Your task to perform on an android device: Open notification settings Image 0: 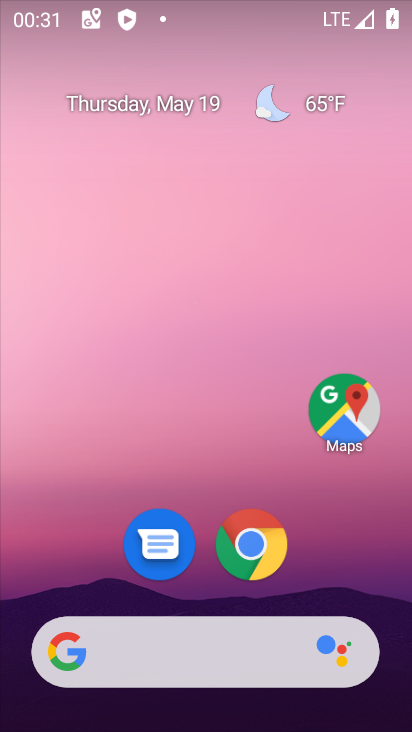
Step 0: drag from (355, 556) to (362, 109)
Your task to perform on an android device: Open notification settings Image 1: 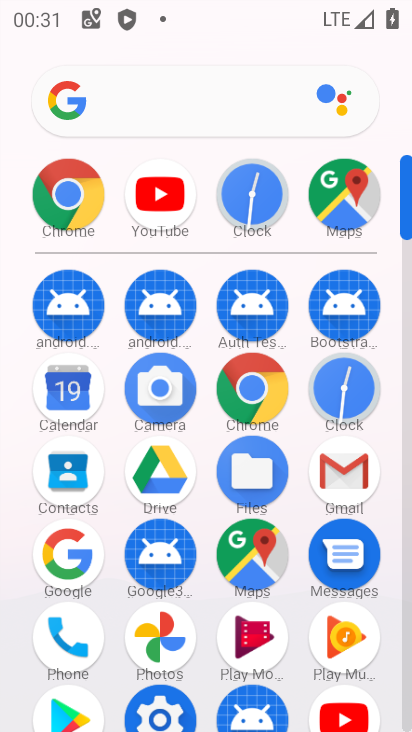
Step 1: drag from (108, 573) to (102, 314)
Your task to perform on an android device: Open notification settings Image 2: 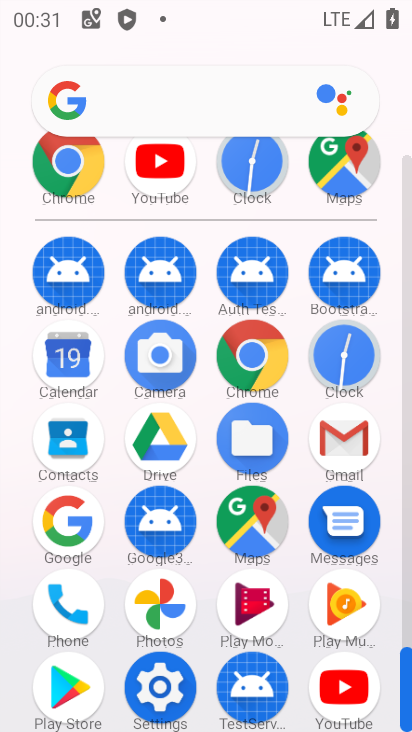
Step 2: click (162, 697)
Your task to perform on an android device: Open notification settings Image 3: 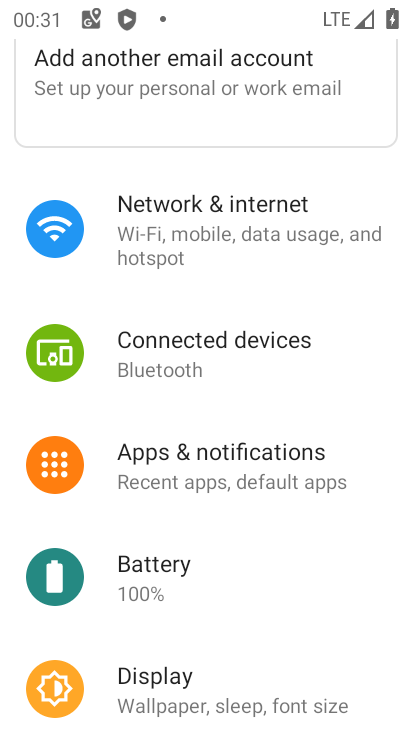
Step 3: drag from (360, 337) to (360, 566)
Your task to perform on an android device: Open notification settings Image 4: 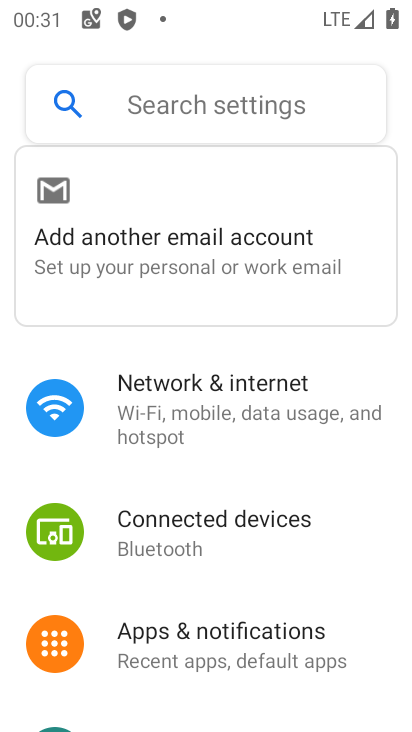
Step 4: drag from (369, 238) to (347, 507)
Your task to perform on an android device: Open notification settings Image 5: 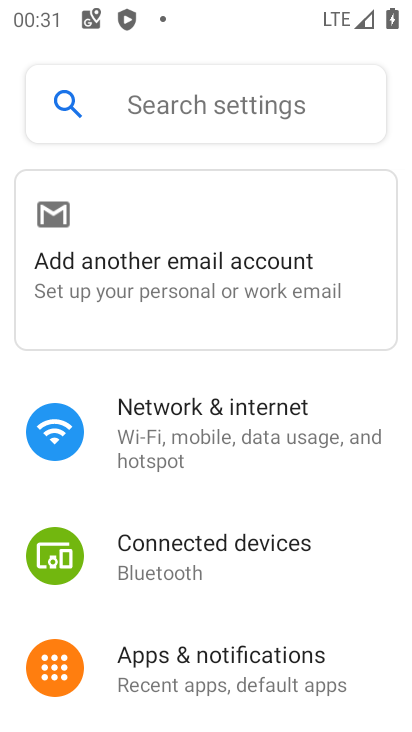
Step 5: drag from (354, 588) to (352, 402)
Your task to perform on an android device: Open notification settings Image 6: 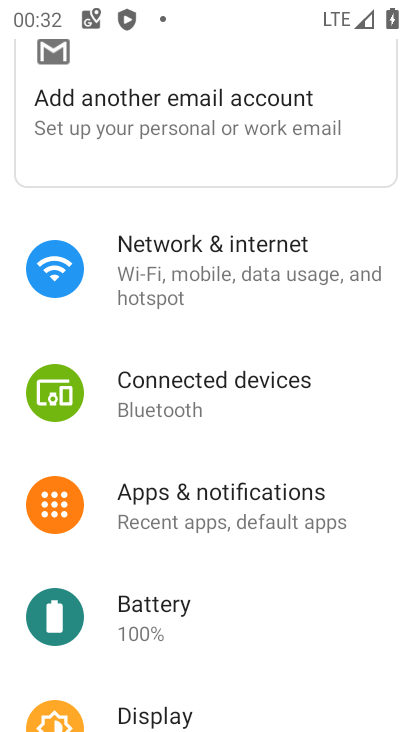
Step 6: drag from (345, 617) to (344, 441)
Your task to perform on an android device: Open notification settings Image 7: 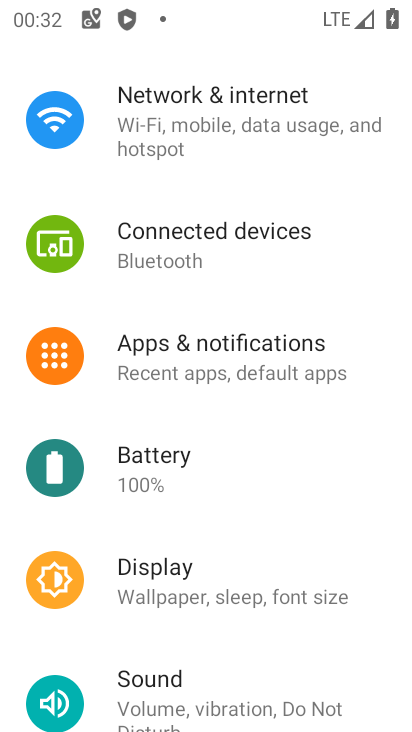
Step 7: drag from (329, 633) to (334, 479)
Your task to perform on an android device: Open notification settings Image 8: 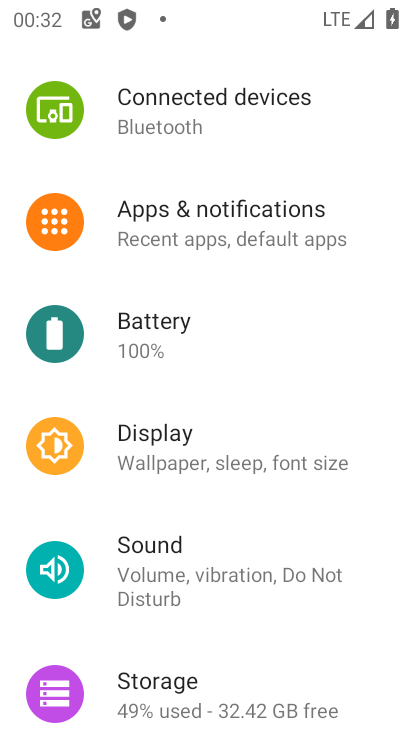
Step 8: drag from (329, 668) to (341, 502)
Your task to perform on an android device: Open notification settings Image 9: 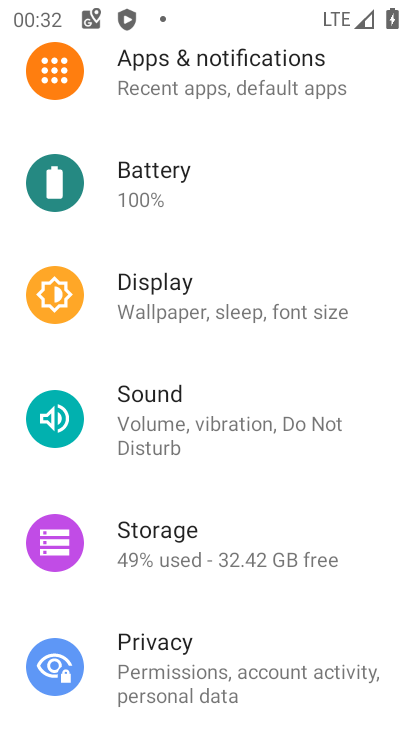
Step 9: drag from (321, 646) to (332, 452)
Your task to perform on an android device: Open notification settings Image 10: 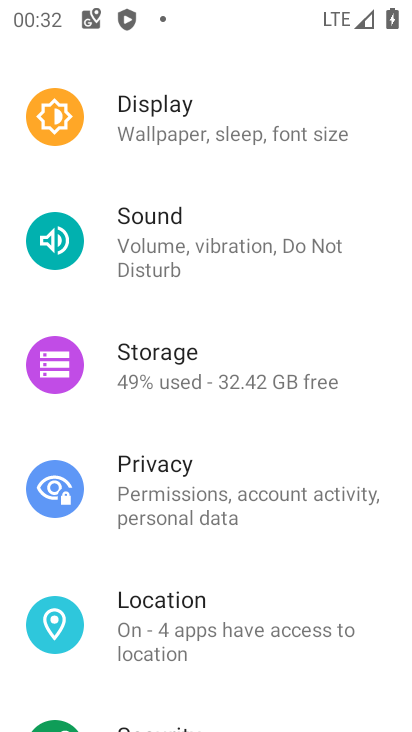
Step 10: drag from (302, 635) to (310, 416)
Your task to perform on an android device: Open notification settings Image 11: 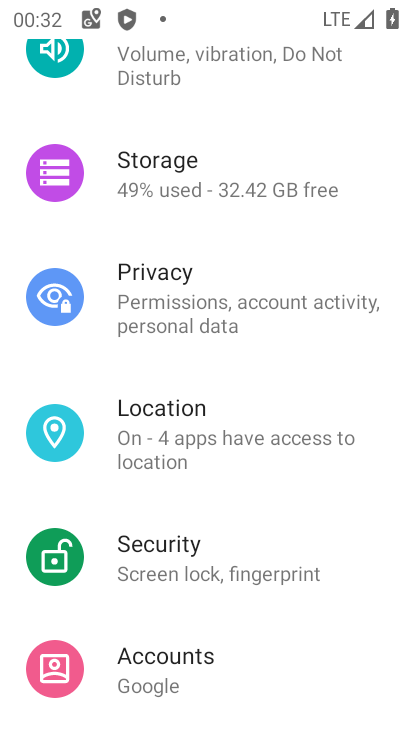
Step 11: drag from (296, 646) to (303, 455)
Your task to perform on an android device: Open notification settings Image 12: 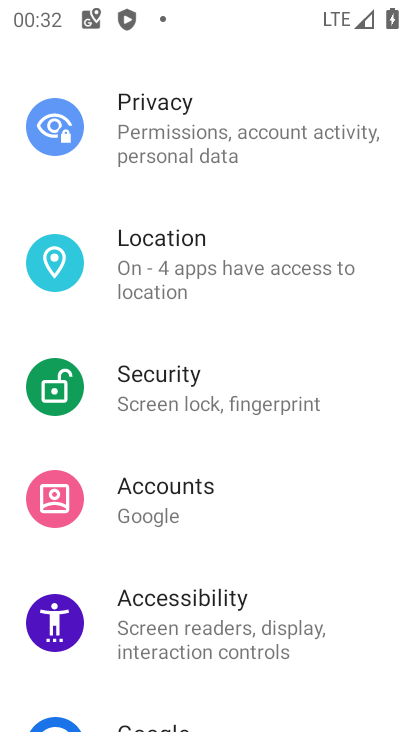
Step 12: drag from (311, 677) to (310, 423)
Your task to perform on an android device: Open notification settings Image 13: 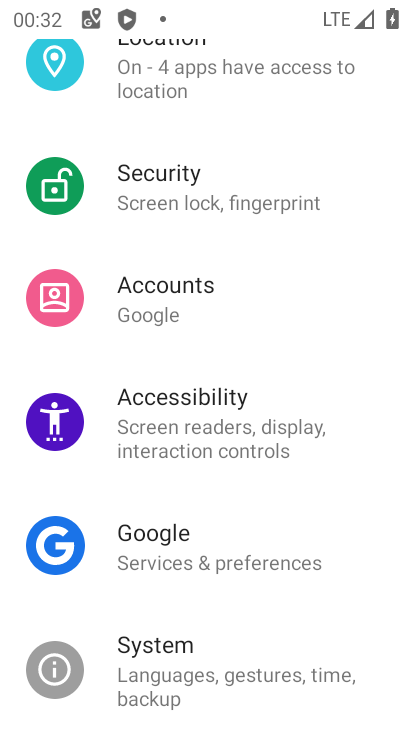
Step 13: drag from (348, 233) to (346, 547)
Your task to perform on an android device: Open notification settings Image 14: 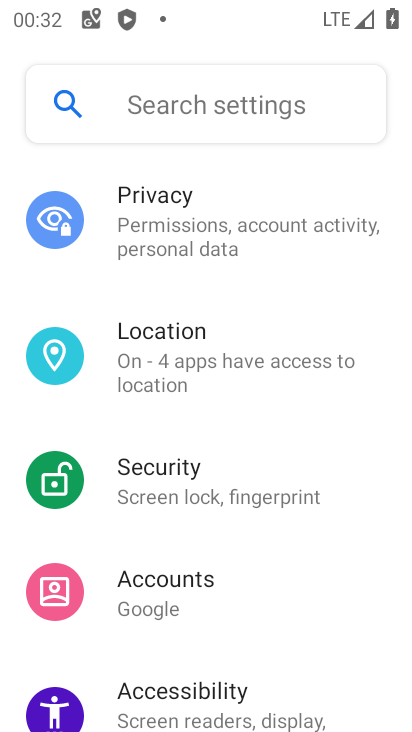
Step 14: drag from (360, 283) to (363, 525)
Your task to perform on an android device: Open notification settings Image 15: 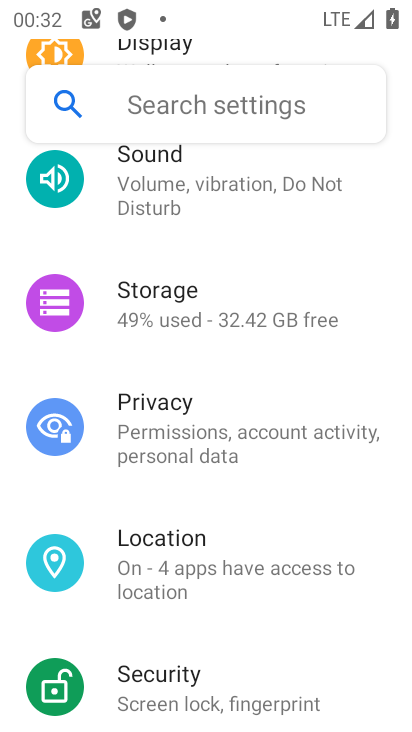
Step 15: drag from (356, 261) to (344, 462)
Your task to perform on an android device: Open notification settings Image 16: 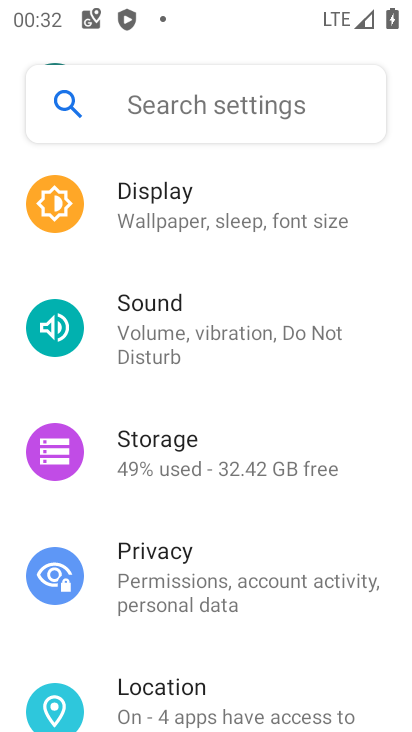
Step 16: drag from (334, 258) to (335, 444)
Your task to perform on an android device: Open notification settings Image 17: 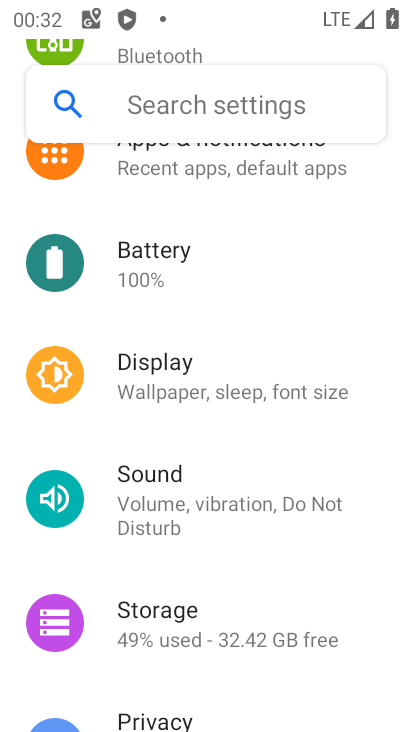
Step 17: drag from (370, 281) to (359, 447)
Your task to perform on an android device: Open notification settings Image 18: 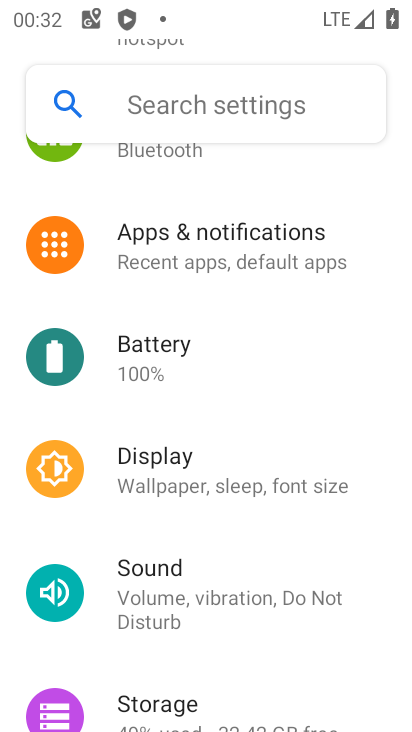
Step 18: drag from (347, 196) to (359, 386)
Your task to perform on an android device: Open notification settings Image 19: 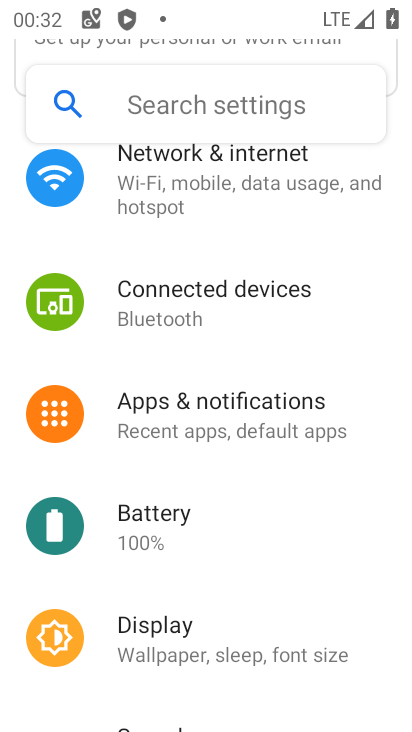
Step 19: drag from (366, 253) to (364, 453)
Your task to perform on an android device: Open notification settings Image 20: 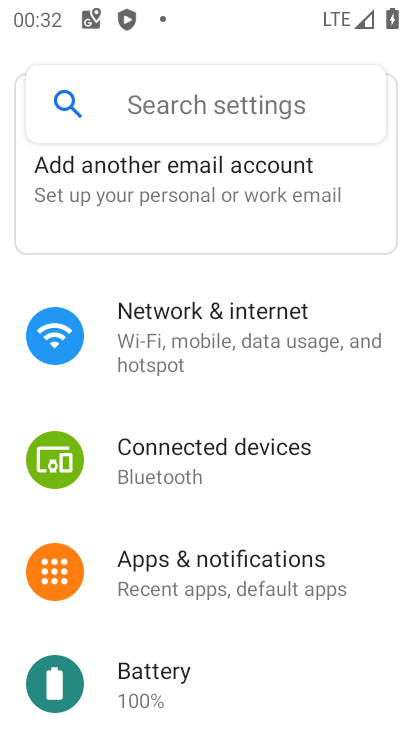
Step 20: click (240, 584)
Your task to perform on an android device: Open notification settings Image 21: 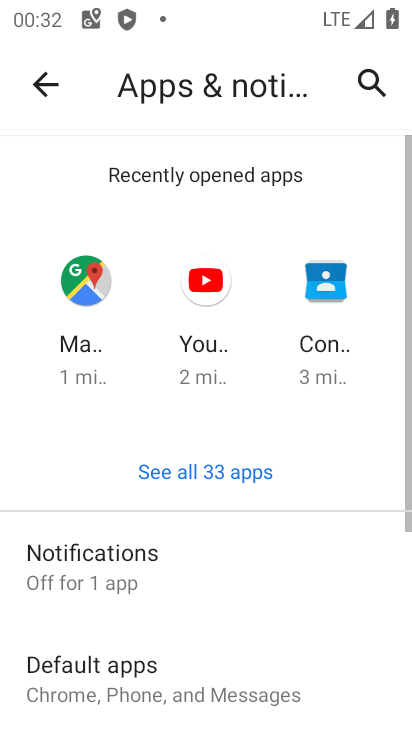
Step 21: drag from (306, 614) to (299, 353)
Your task to perform on an android device: Open notification settings Image 22: 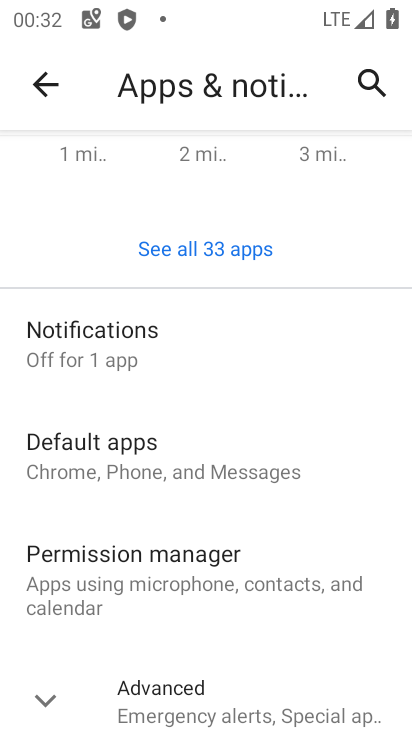
Step 22: click (129, 368)
Your task to perform on an android device: Open notification settings Image 23: 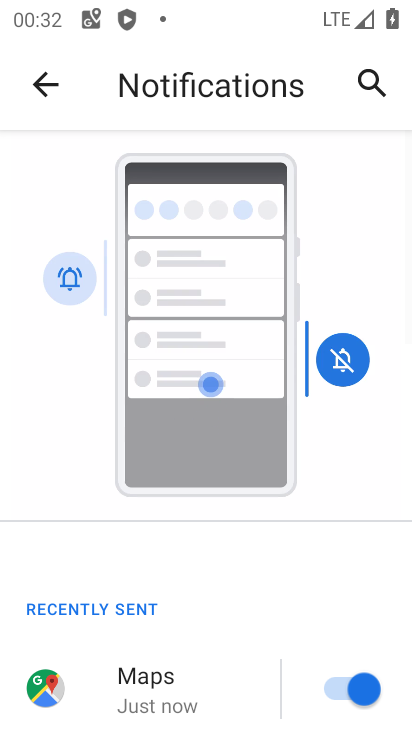
Step 23: task complete